Your task to perform on an android device: Open Android settings Image 0: 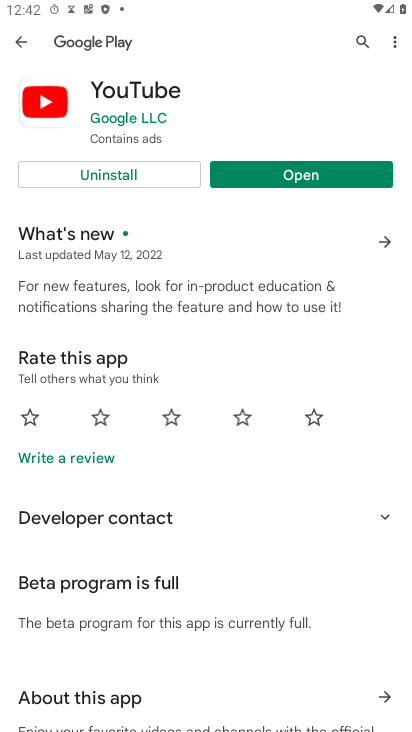
Step 0: press home button
Your task to perform on an android device: Open Android settings Image 1: 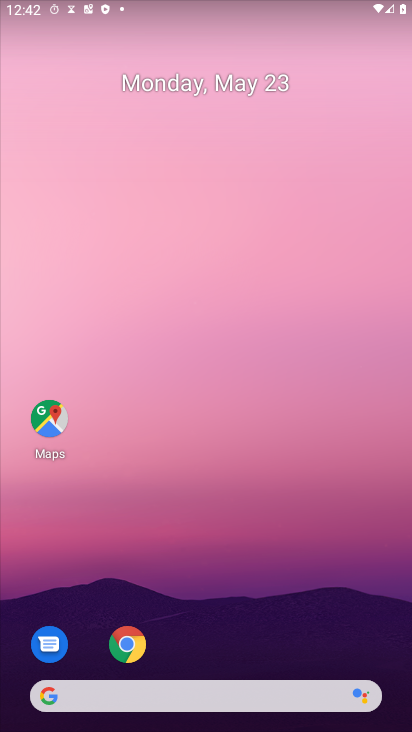
Step 1: drag from (230, 645) to (251, 63)
Your task to perform on an android device: Open Android settings Image 2: 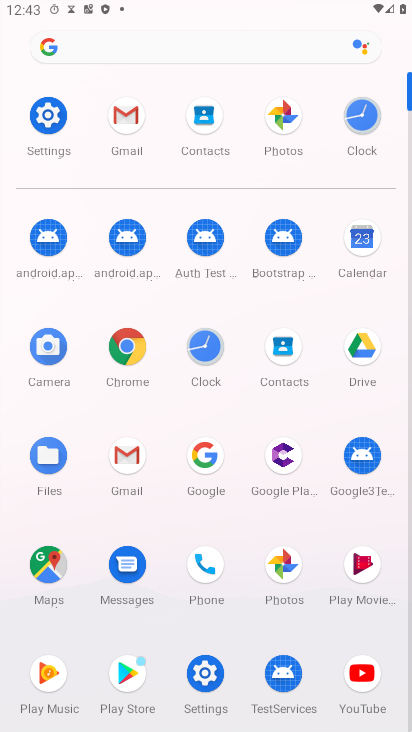
Step 2: click (51, 110)
Your task to perform on an android device: Open Android settings Image 3: 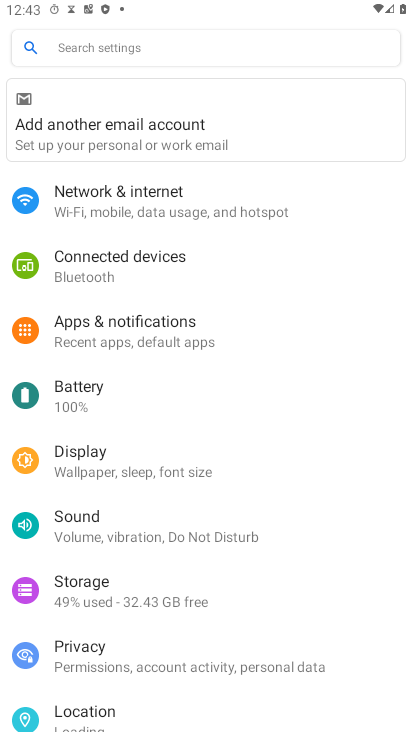
Step 3: drag from (251, 669) to (248, 292)
Your task to perform on an android device: Open Android settings Image 4: 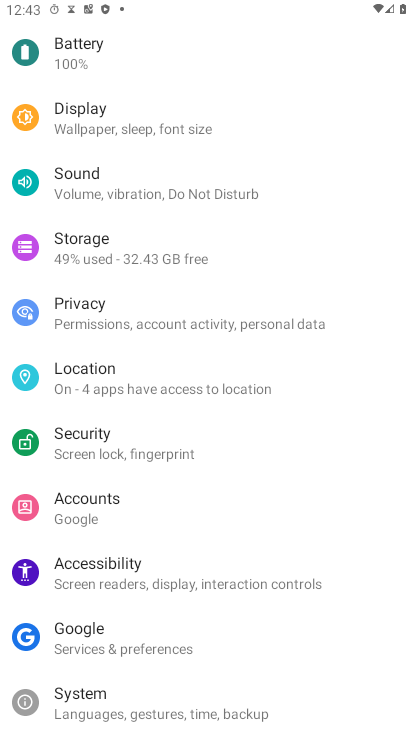
Step 4: drag from (232, 670) to (302, 9)
Your task to perform on an android device: Open Android settings Image 5: 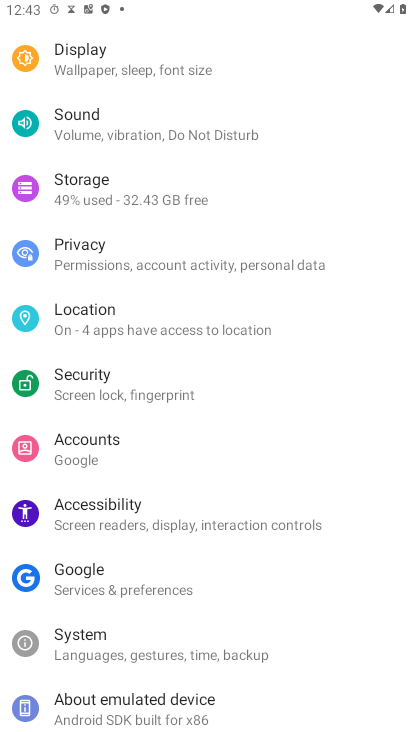
Step 5: click (201, 704)
Your task to perform on an android device: Open Android settings Image 6: 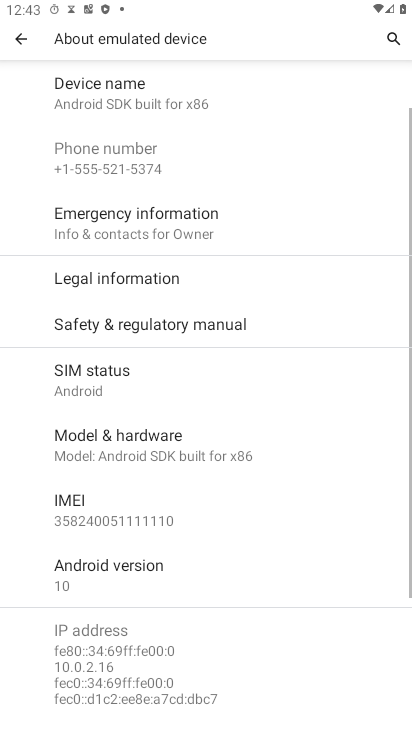
Step 6: click (124, 568)
Your task to perform on an android device: Open Android settings Image 7: 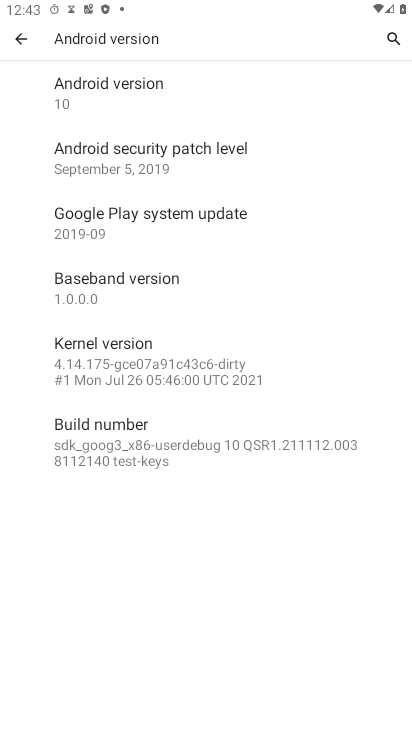
Step 7: task complete